Your task to perform on an android device: manage bookmarks in the chrome app Image 0: 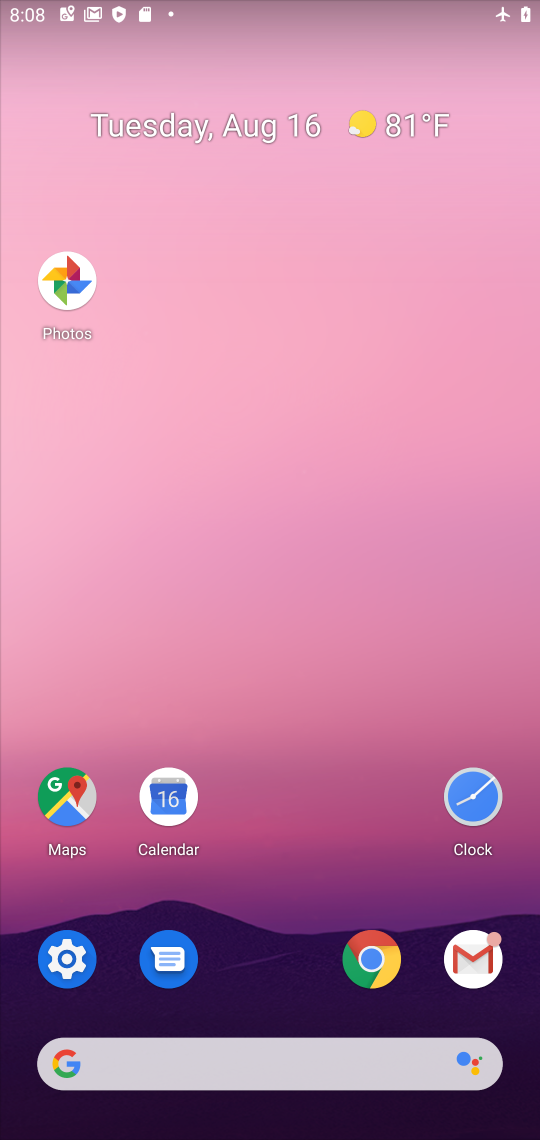
Step 0: click (367, 967)
Your task to perform on an android device: manage bookmarks in the chrome app Image 1: 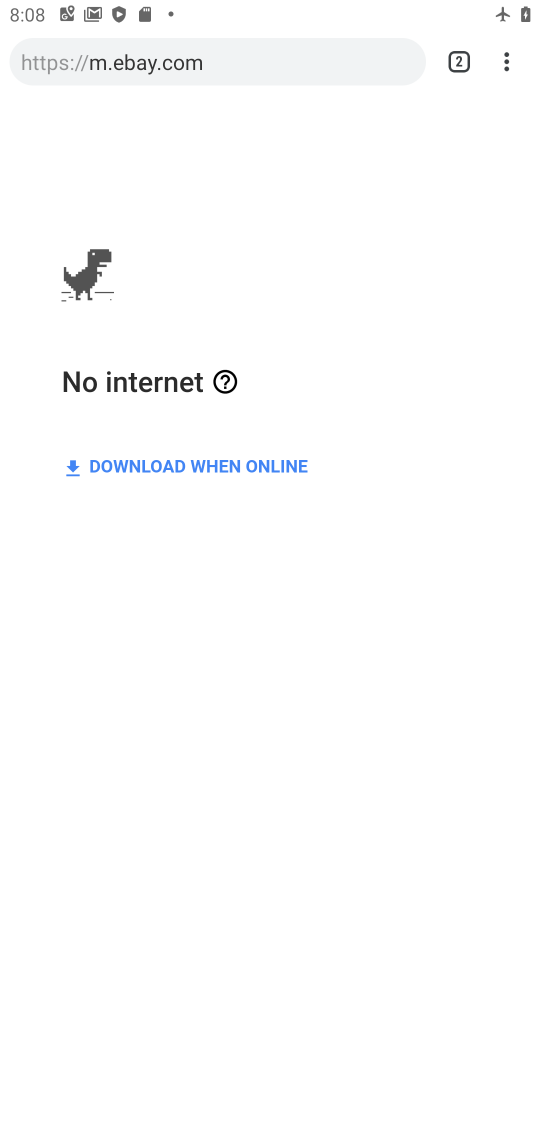
Step 1: click (513, 65)
Your task to perform on an android device: manage bookmarks in the chrome app Image 2: 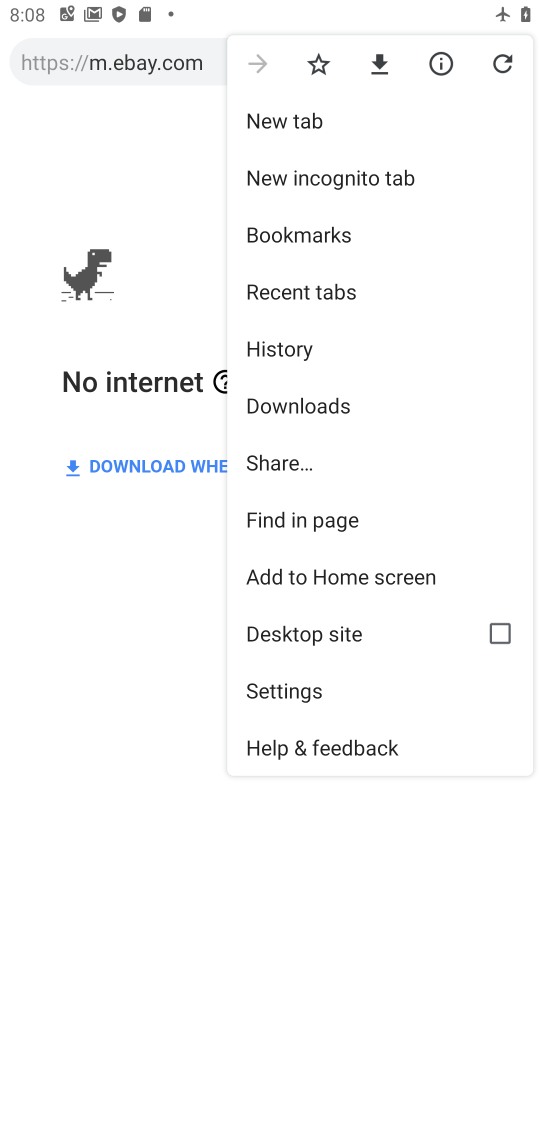
Step 2: click (305, 232)
Your task to perform on an android device: manage bookmarks in the chrome app Image 3: 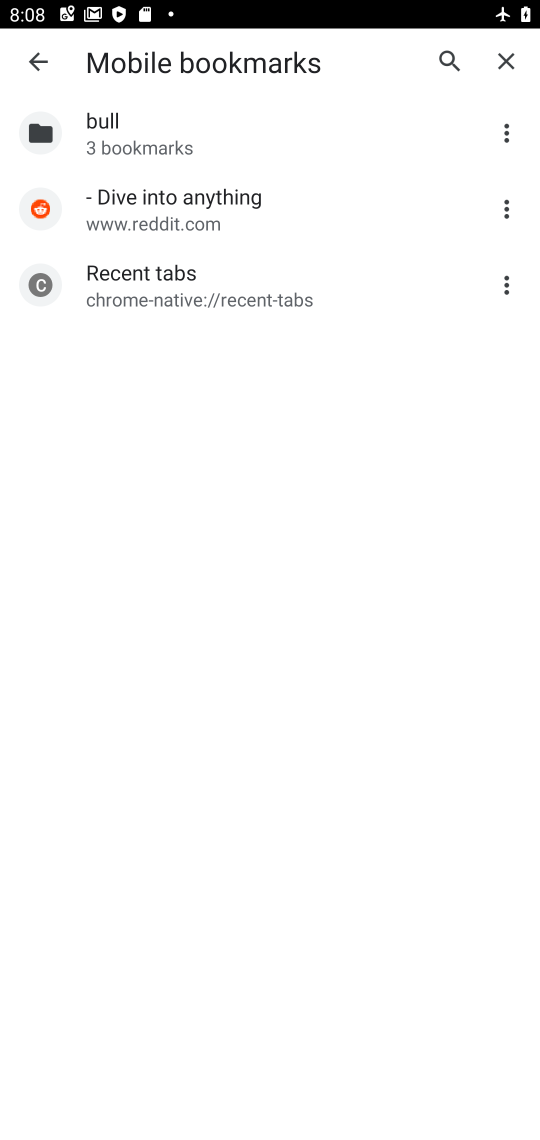
Step 3: click (502, 130)
Your task to perform on an android device: manage bookmarks in the chrome app Image 4: 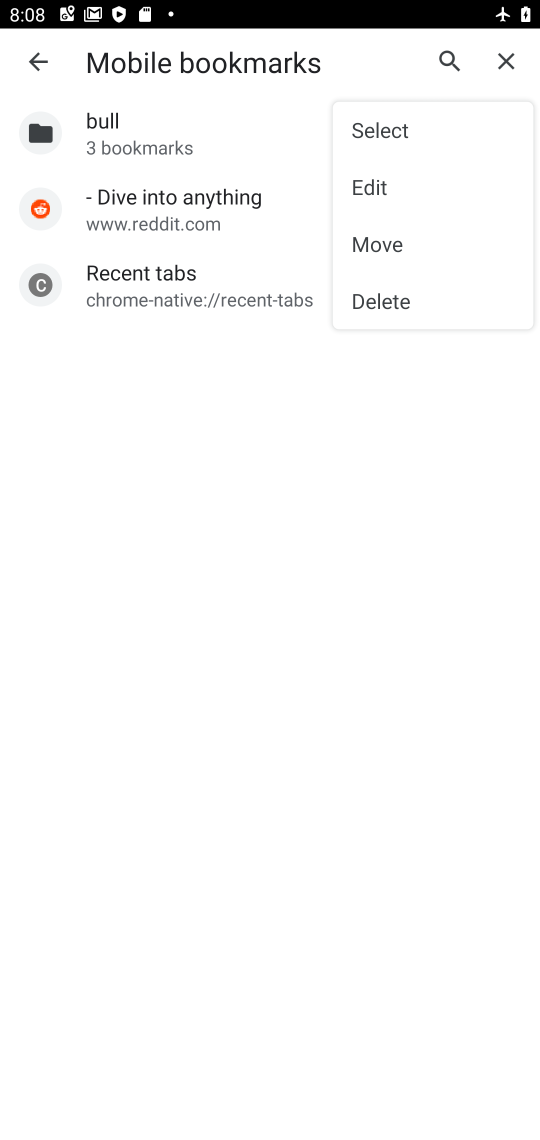
Step 4: click (374, 185)
Your task to perform on an android device: manage bookmarks in the chrome app Image 5: 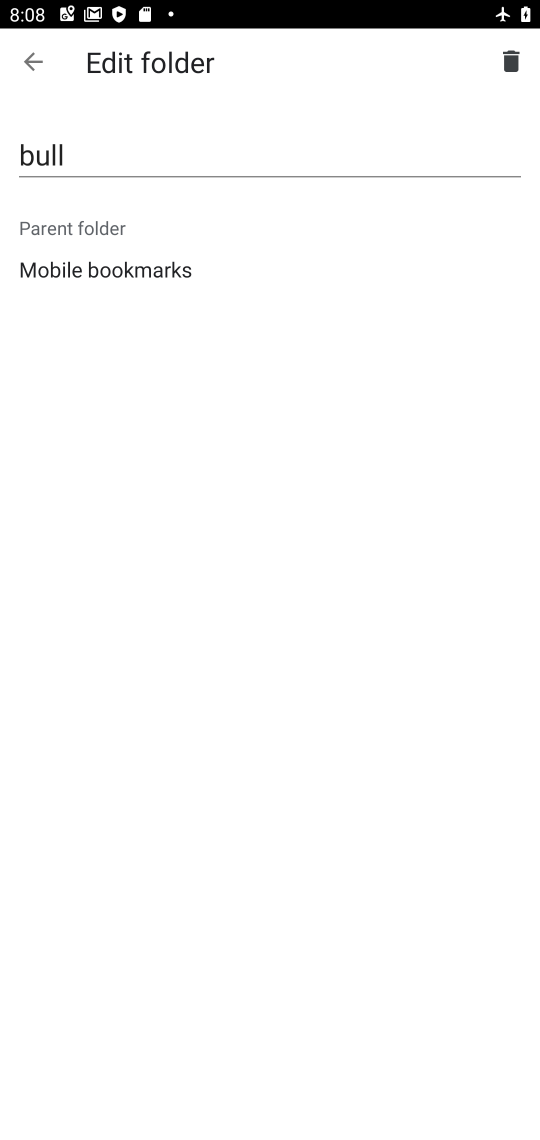
Step 5: task complete